Your task to perform on an android device: Open privacy settings Image 0: 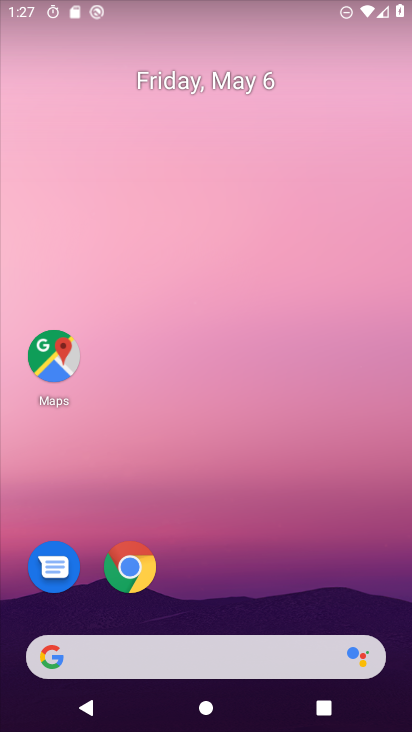
Step 0: drag from (347, 590) to (349, 3)
Your task to perform on an android device: Open privacy settings Image 1: 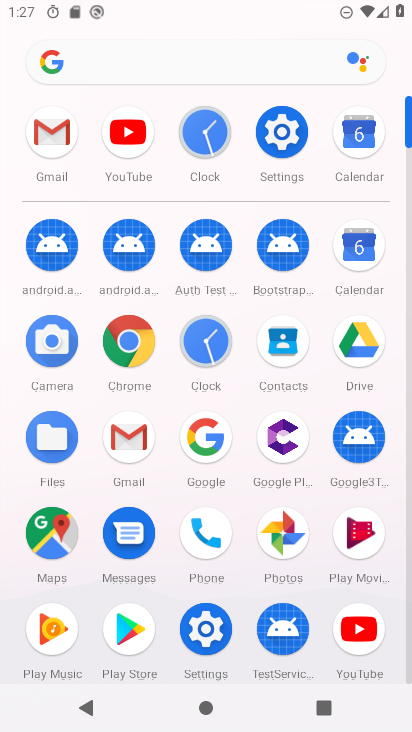
Step 1: click (277, 134)
Your task to perform on an android device: Open privacy settings Image 2: 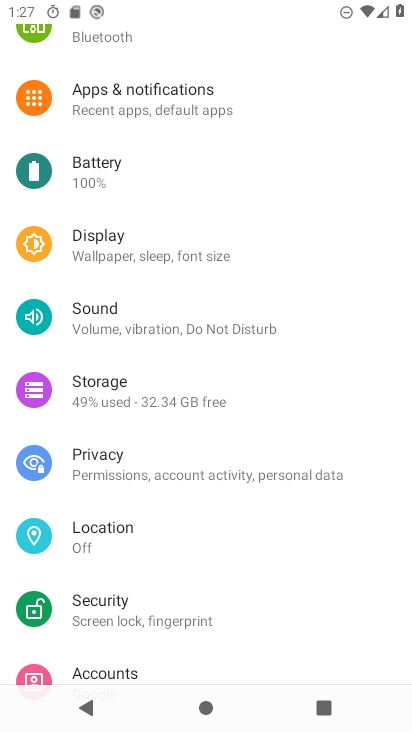
Step 2: click (90, 458)
Your task to perform on an android device: Open privacy settings Image 3: 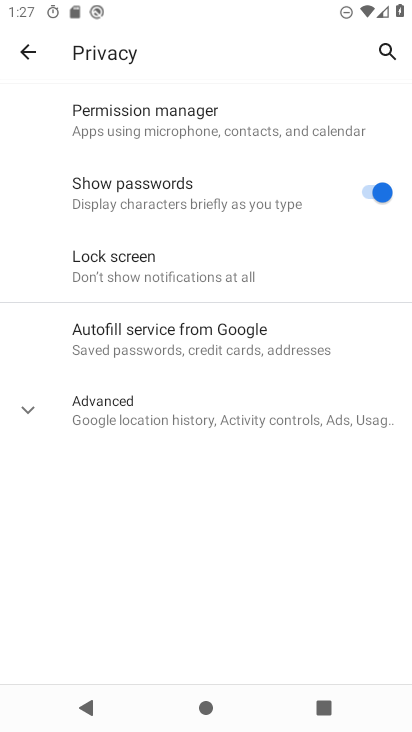
Step 3: task complete